Your task to perform on an android device: Open the calendar app, open the side menu, and click the "Day" option Image 0: 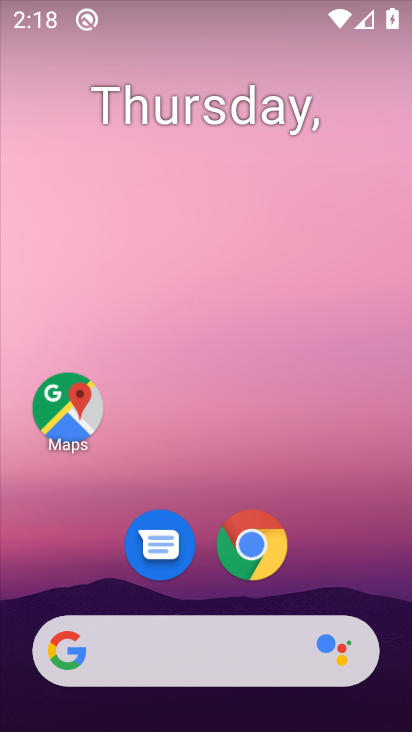
Step 0: drag from (200, 576) to (307, 42)
Your task to perform on an android device: Open the calendar app, open the side menu, and click the "Day" option Image 1: 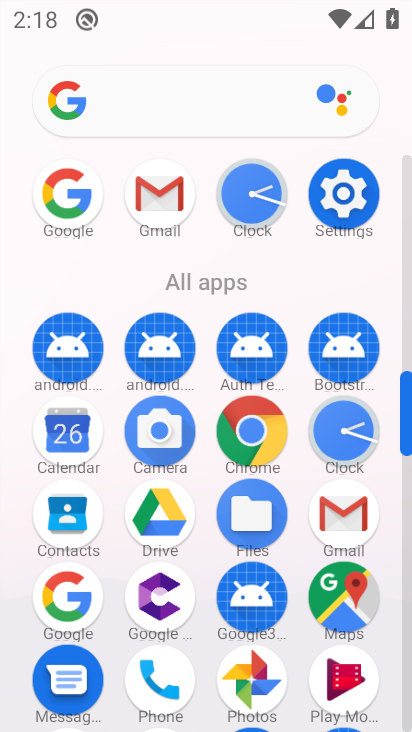
Step 1: click (76, 441)
Your task to perform on an android device: Open the calendar app, open the side menu, and click the "Day" option Image 2: 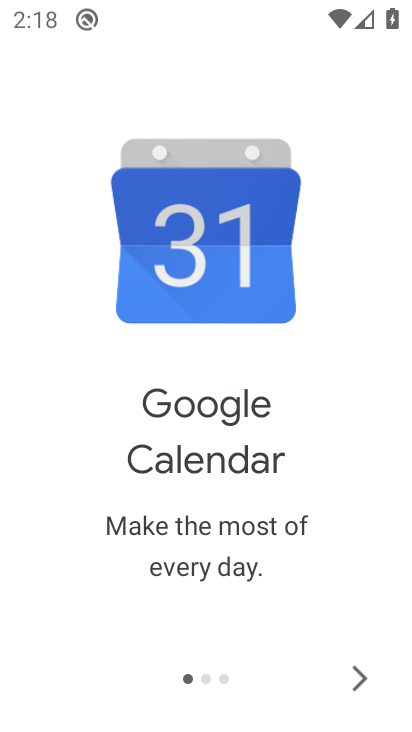
Step 2: click (359, 679)
Your task to perform on an android device: Open the calendar app, open the side menu, and click the "Day" option Image 3: 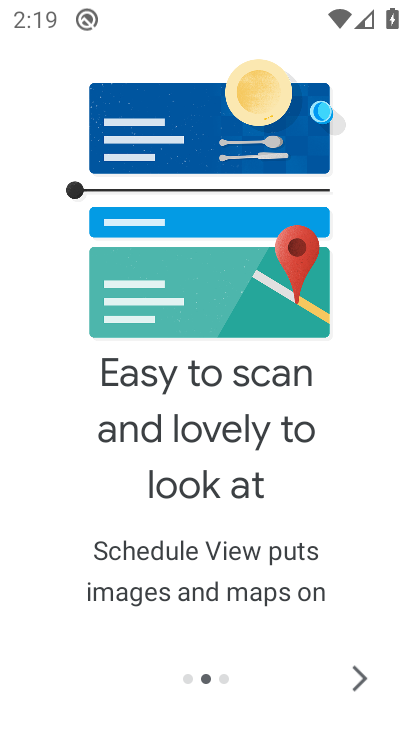
Step 3: click (359, 679)
Your task to perform on an android device: Open the calendar app, open the side menu, and click the "Day" option Image 4: 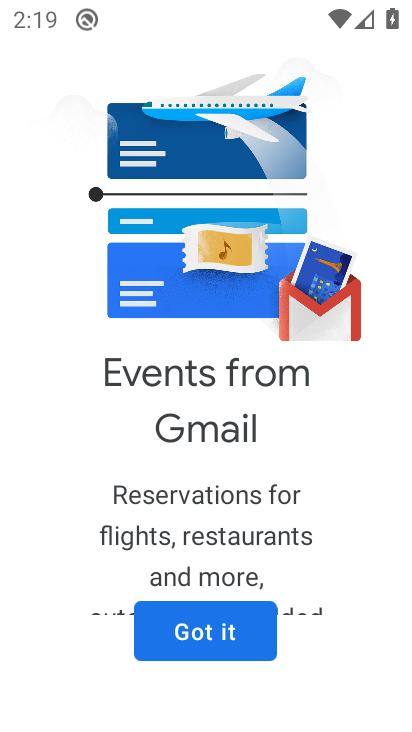
Step 4: click (219, 631)
Your task to perform on an android device: Open the calendar app, open the side menu, and click the "Day" option Image 5: 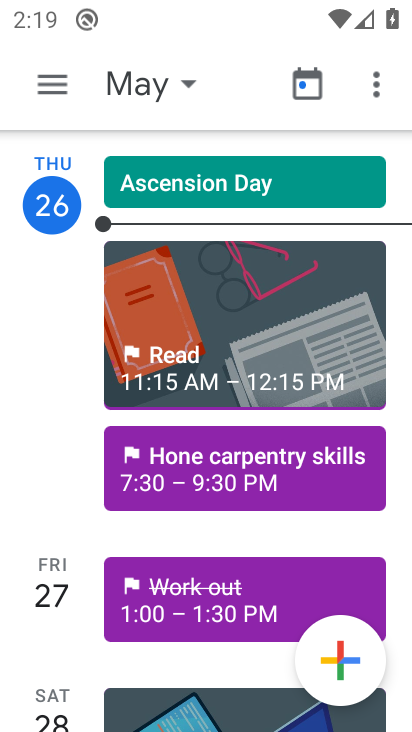
Step 5: click (53, 85)
Your task to perform on an android device: Open the calendar app, open the side menu, and click the "Day" option Image 6: 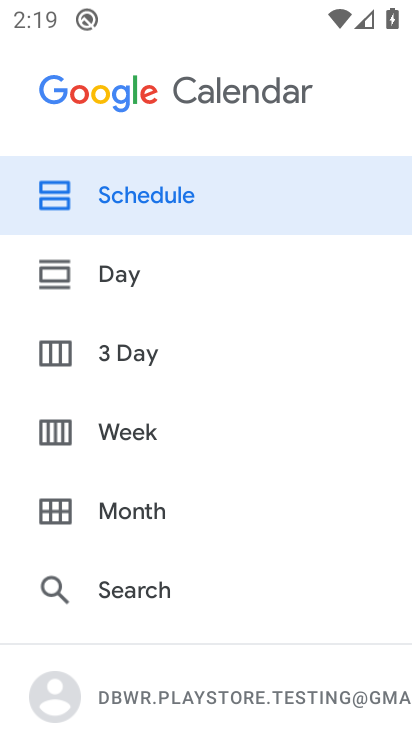
Step 6: click (128, 272)
Your task to perform on an android device: Open the calendar app, open the side menu, and click the "Day" option Image 7: 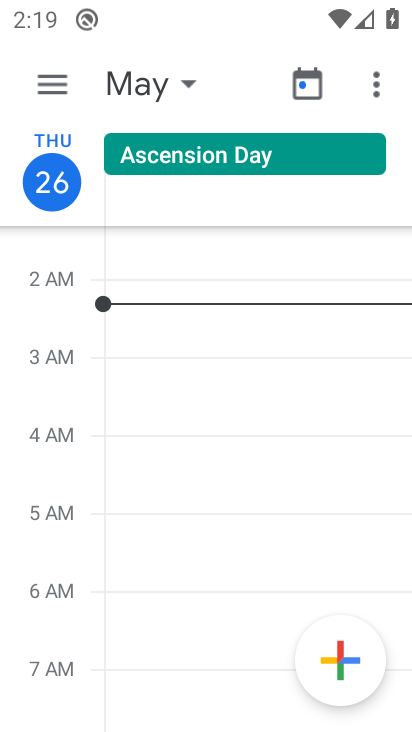
Step 7: task complete